Your task to perform on an android device: delete the emails in spam in the gmail app Image 0: 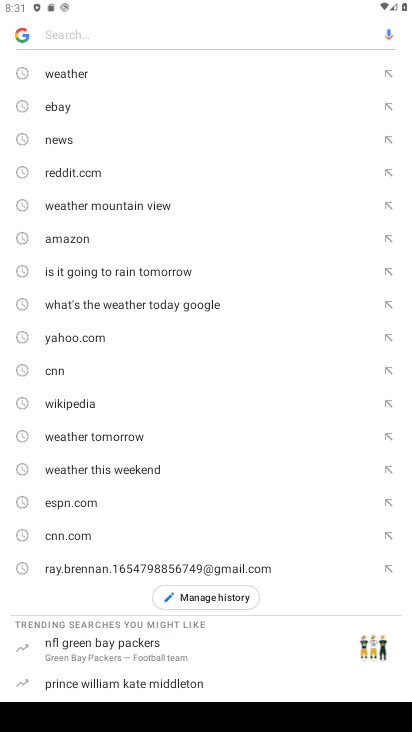
Step 0: press home button
Your task to perform on an android device: delete the emails in spam in the gmail app Image 1: 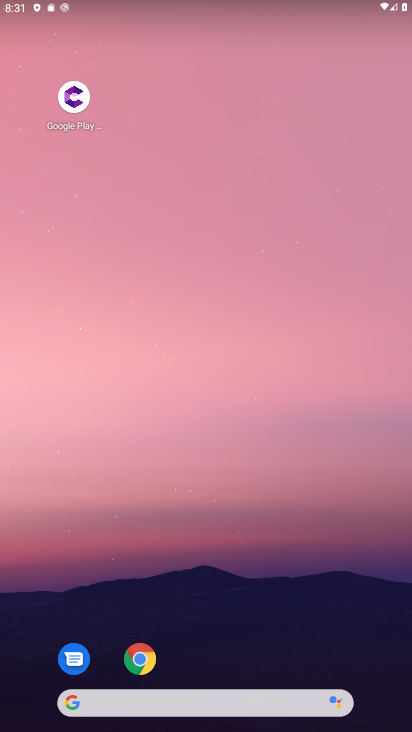
Step 1: drag from (220, 604) to (187, 216)
Your task to perform on an android device: delete the emails in spam in the gmail app Image 2: 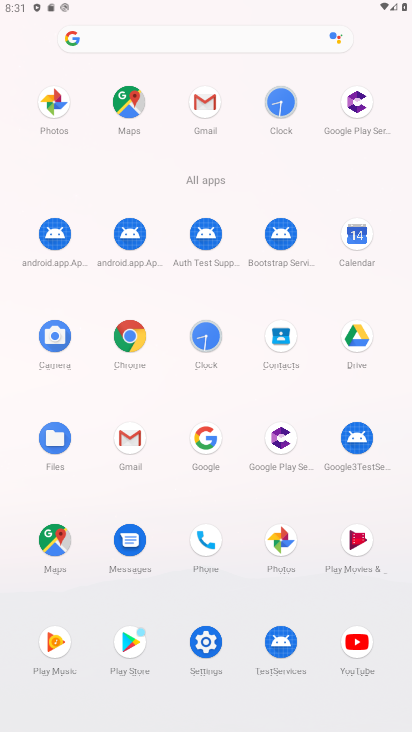
Step 2: click (204, 106)
Your task to perform on an android device: delete the emails in spam in the gmail app Image 3: 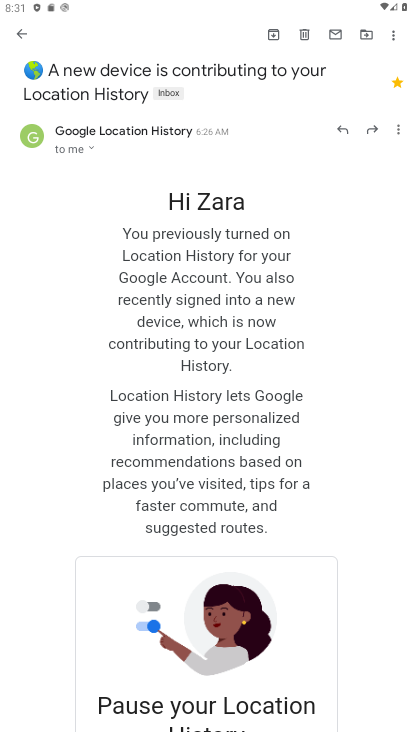
Step 3: click (16, 30)
Your task to perform on an android device: delete the emails in spam in the gmail app Image 4: 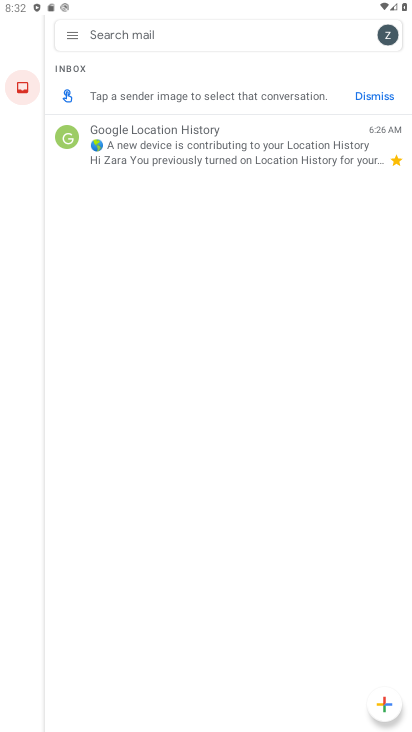
Step 4: click (72, 33)
Your task to perform on an android device: delete the emails in spam in the gmail app Image 5: 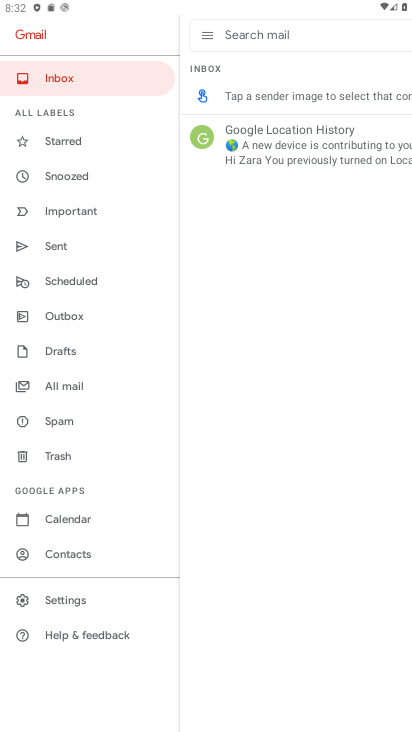
Step 5: click (55, 411)
Your task to perform on an android device: delete the emails in spam in the gmail app Image 6: 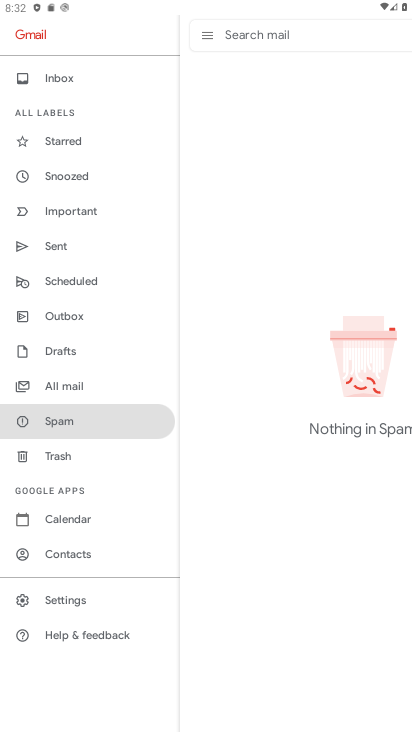
Step 6: task complete